Your task to perform on an android device: change the upload size in google photos Image 0: 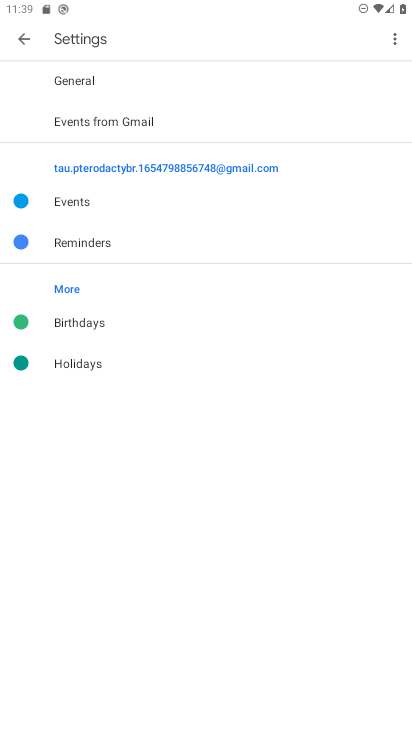
Step 0: press back button
Your task to perform on an android device: change the upload size in google photos Image 1: 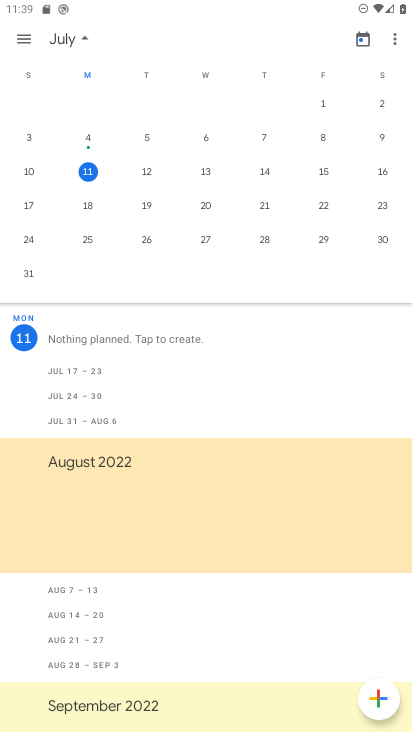
Step 1: press home button
Your task to perform on an android device: change the upload size in google photos Image 2: 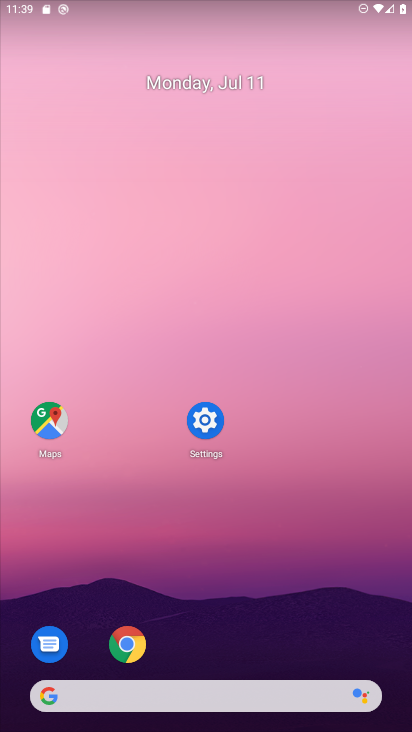
Step 2: drag from (385, 677) to (295, 70)
Your task to perform on an android device: change the upload size in google photos Image 3: 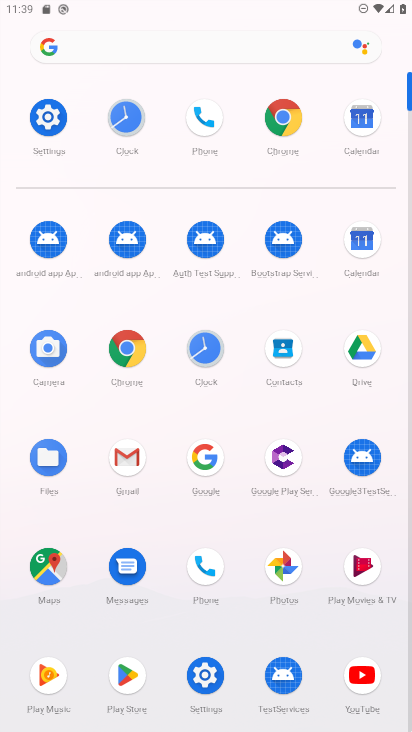
Step 3: click (273, 553)
Your task to perform on an android device: change the upload size in google photos Image 4: 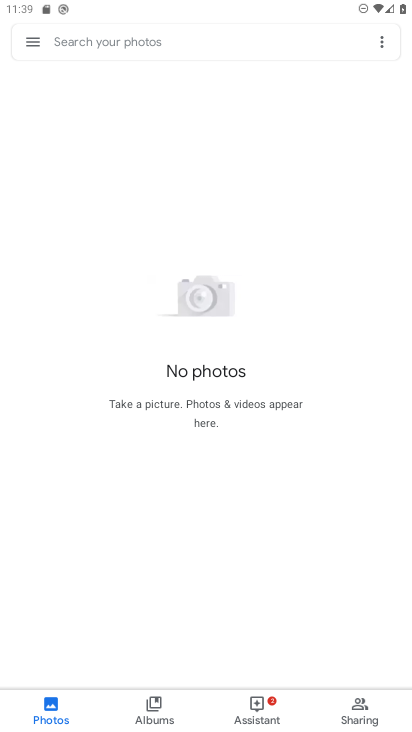
Step 4: click (29, 34)
Your task to perform on an android device: change the upload size in google photos Image 5: 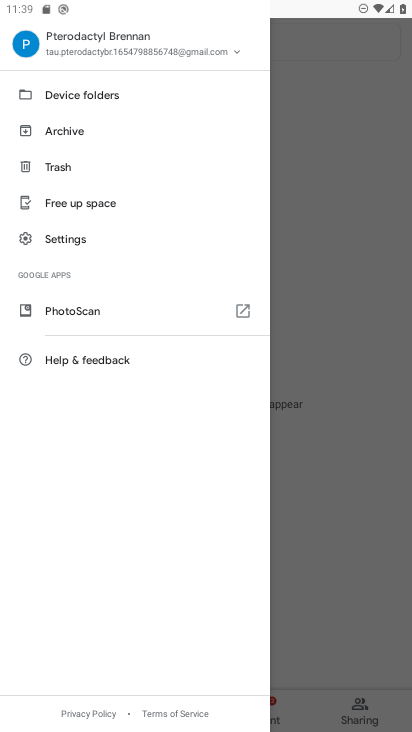
Step 5: click (57, 240)
Your task to perform on an android device: change the upload size in google photos Image 6: 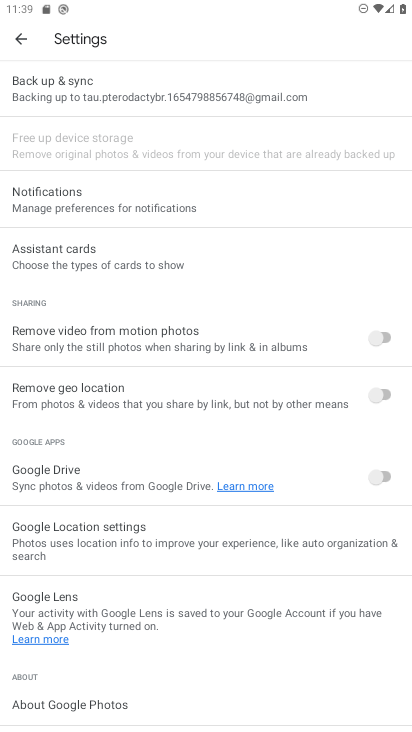
Step 6: click (72, 71)
Your task to perform on an android device: change the upload size in google photos Image 7: 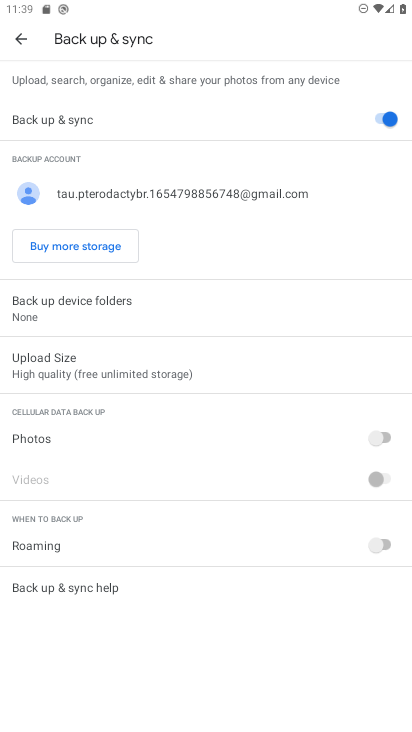
Step 7: click (56, 372)
Your task to perform on an android device: change the upload size in google photos Image 8: 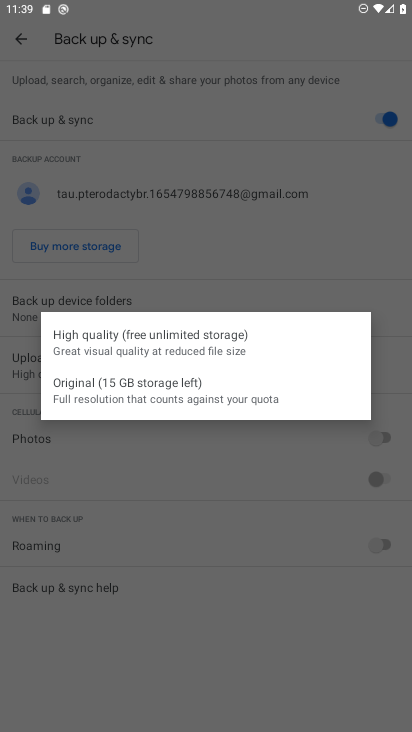
Step 8: click (109, 377)
Your task to perform on an android device: change the upload size in google photos Image 9: 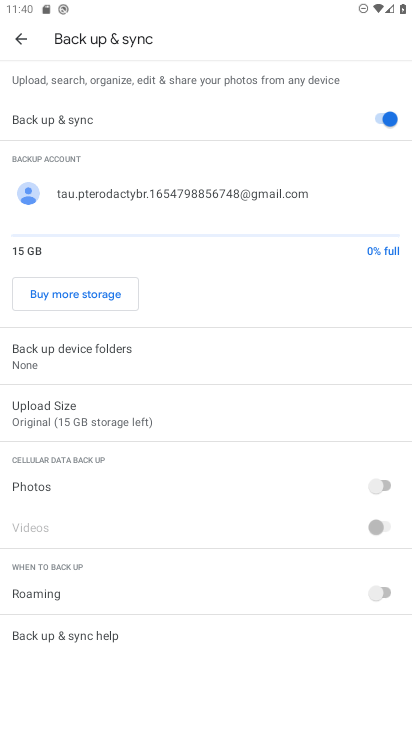
Step 9: task complete